Your task to perform on an android device: Play the last video I watched on Youtube Image 0: 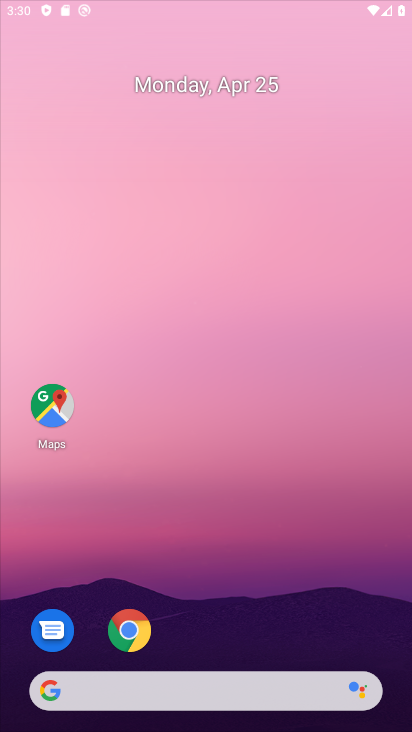
Step 0: drag from (336, 431) to (283, 28)
Your task to perform on an android device: Play the last video I watched on Youtube Image 1: 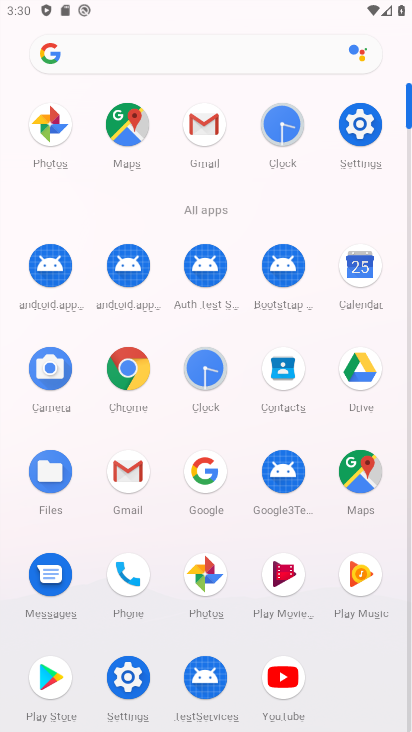
Step 1: click (283, 678)
Your task to perform on an android device: Play the last video I watched on Youtube Image 2: 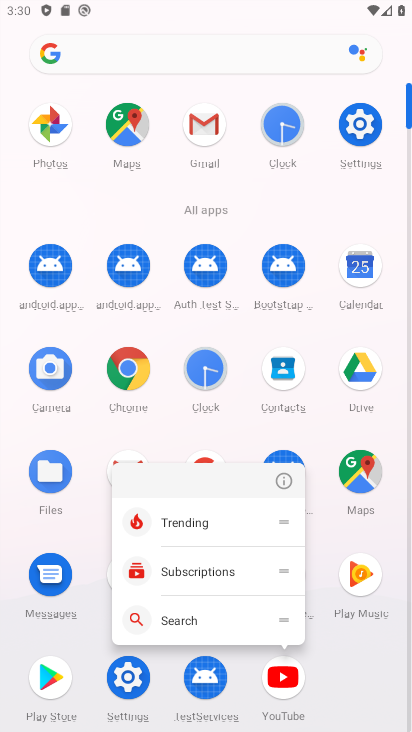
Step 2: click (283, 677)
Your task to perform on an android device: Play the last video I watched on Youtube Image 3: 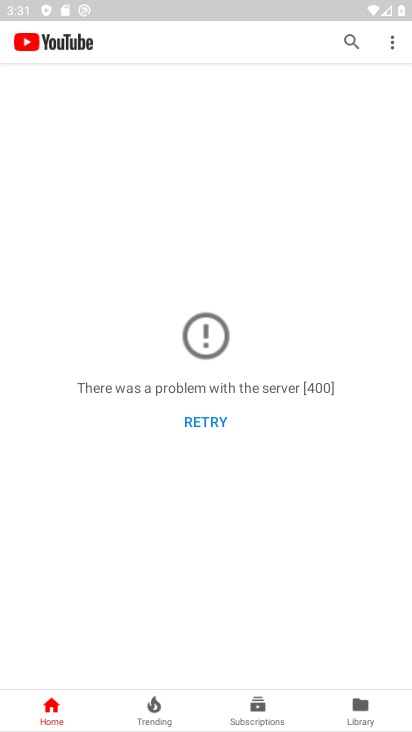
Step 3: click (359, 721)
Your task to perform on an android device: Play the last video I watched on Youtube Image 4: 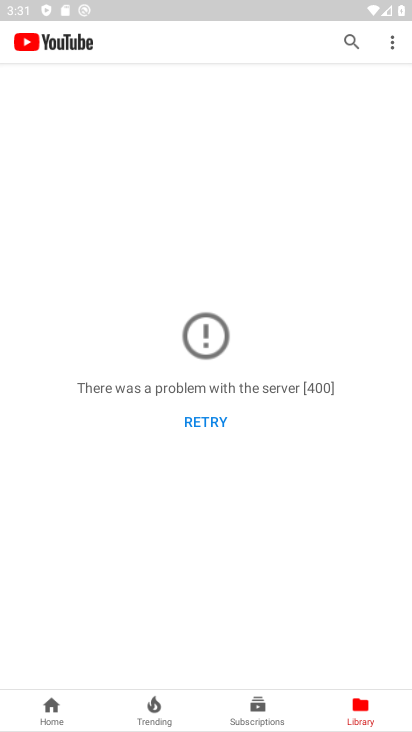
Step 4: click (359, 721)
Your task to perform on an android device: Play the last video I watched on Youtube Image 5: 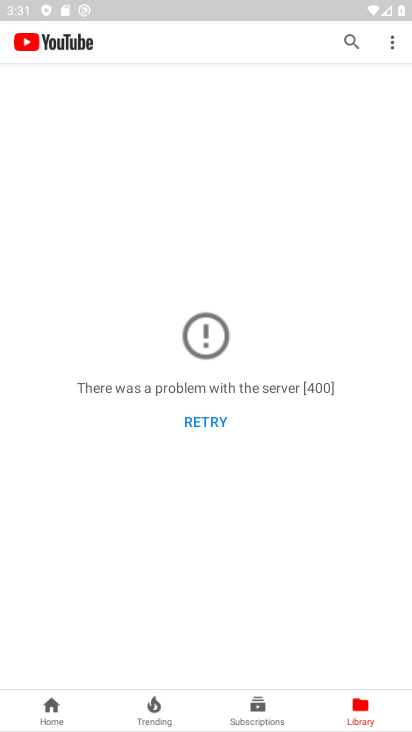
Step 5: task complete